Your task to perform on an android device: turn off data saver in the chrome app Image 0: 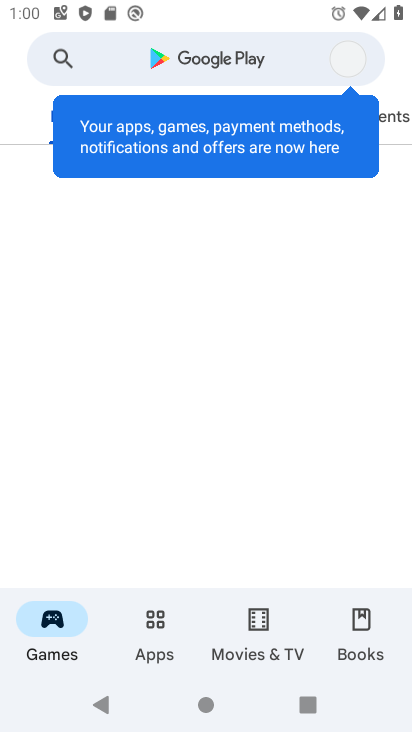
Step 0: press home button
Your task to perform on an android device: turn off data saver in the chrome app Image 1: 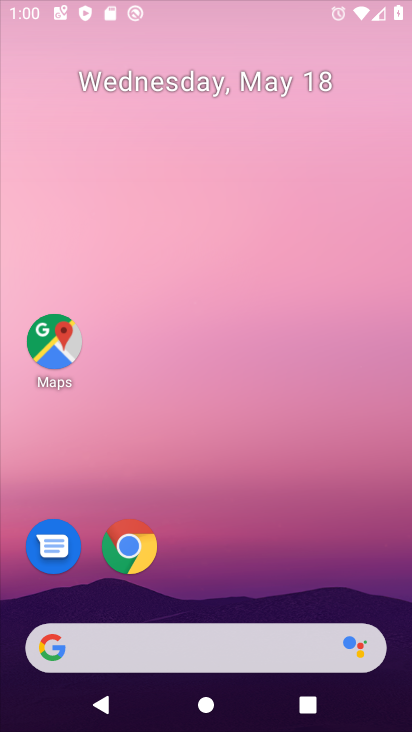
Step 1: drag from (188, 640) to (176, 134)
Your task to perform on an android device: turn off data saver in the chrome app Image 2: 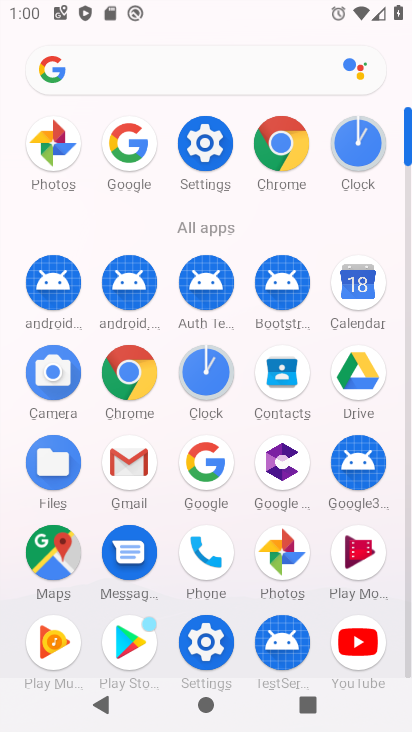
Step 2: click (293, 149)
Your task to perform on an android device: turn off data saver in the chrome app Image 3: 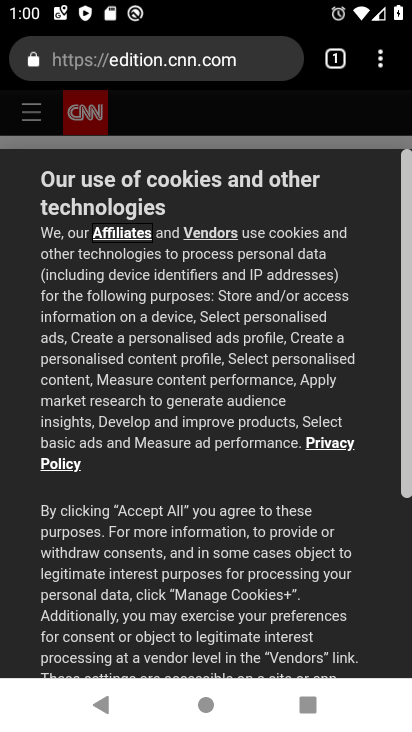
Step 3: click (393, 64)
Your task to perform on an android device: turn off data saver in the chrome app Image 4: 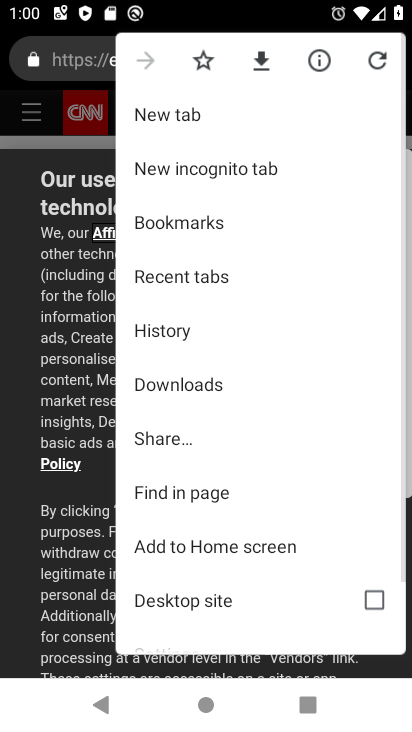
Step 4: drag from (233, 520) to (232, 118)
Your task to perform on an android device: turn off data saver in the chrome app Image 5: 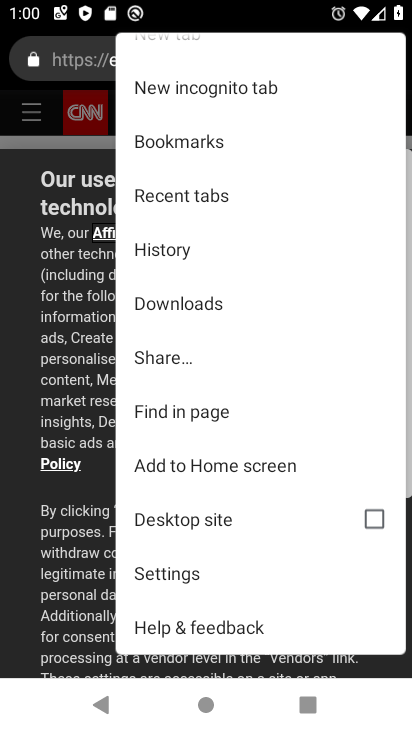
Step 5: click (210, 574)
Your task to perform on an android device: turn off data saver in the chrome app Image 6: 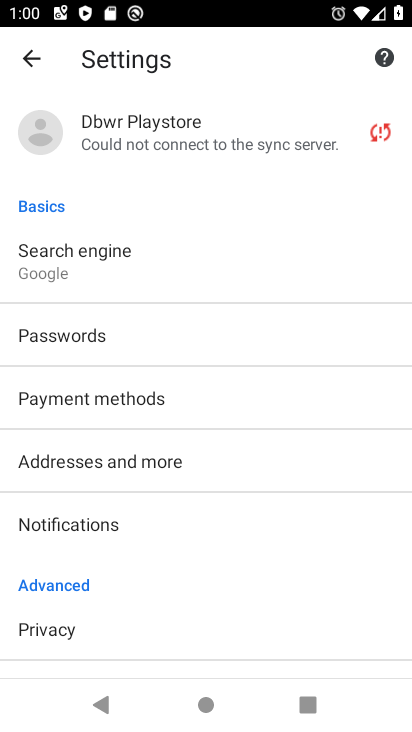
Step 6: drag from (210, 573) to (223, 26)
Your task to perform on an android device: turn off data saver in the chrome app Image 7: 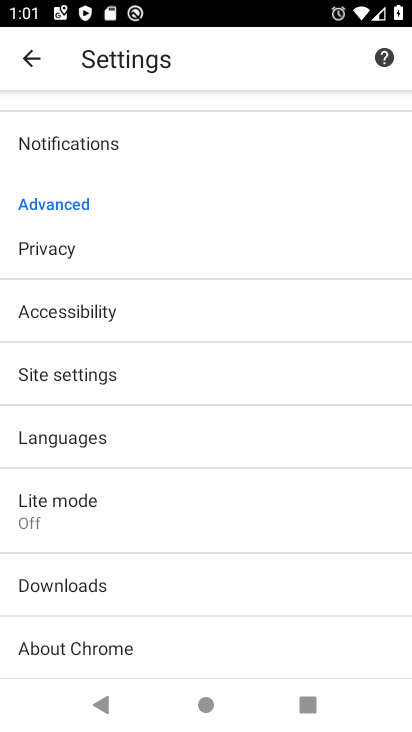
Step 7: click (68, 523)
Your task to perform on an android device: turn off data saver in the chrome app Image 8: 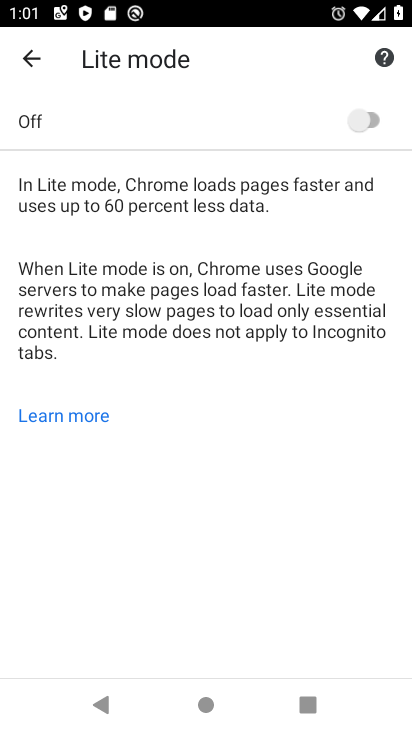
Step 8: task complete